Your task to perform on an android device: Go to accessibility settings Image 0: 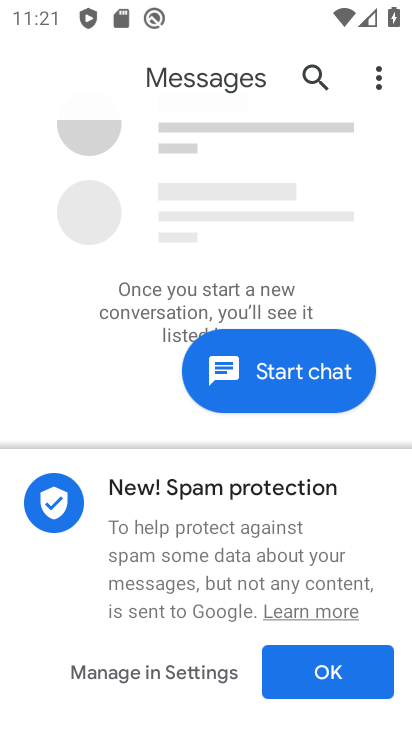
Step 0: press home button
Your task to perform on an android device: Go to accessibility settings Image 1: 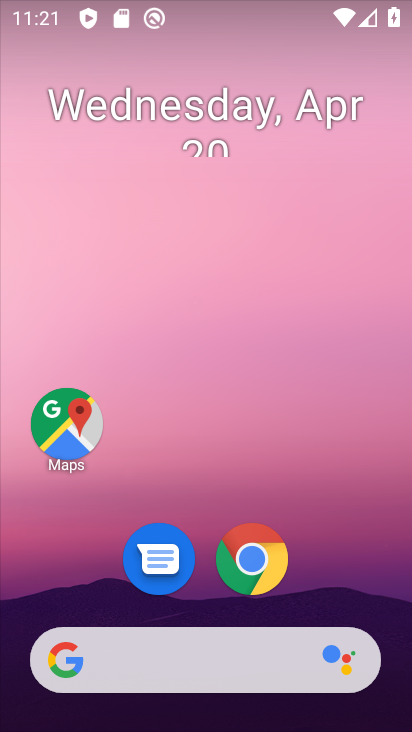
Step 1: drag from (327, 536) to (256, 44)
Your task to perform on an android device: Go to accessibility settings Image 2: 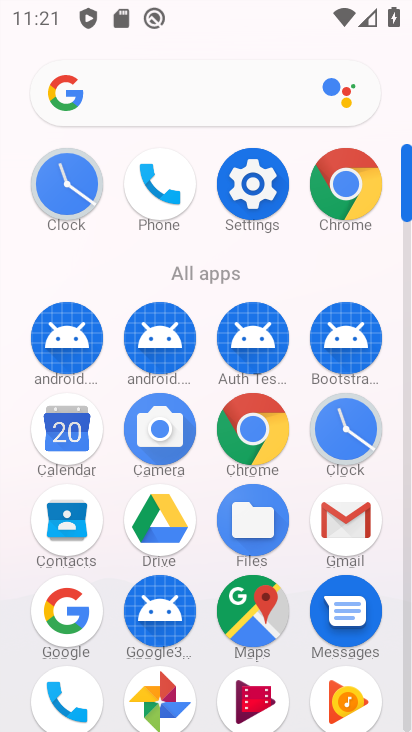
Step 2: click (244, 187)
Your task to perform on an android device: Go to accessibility settings Image 3: 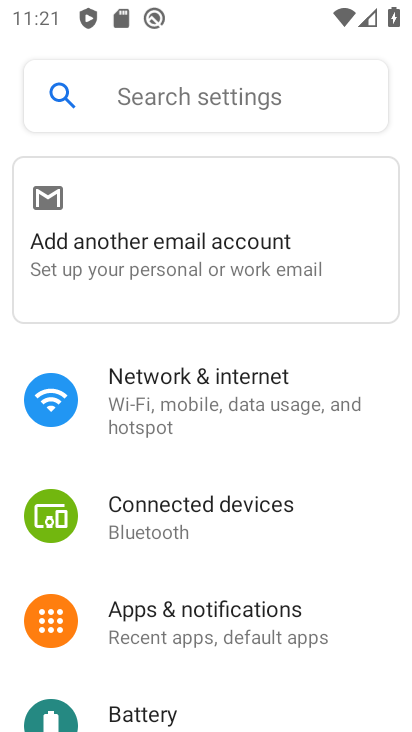
Step 3: drag from (243, 651) to (260, 220)
Your task to perform on an android device: Go to accessibility settings Image 4: 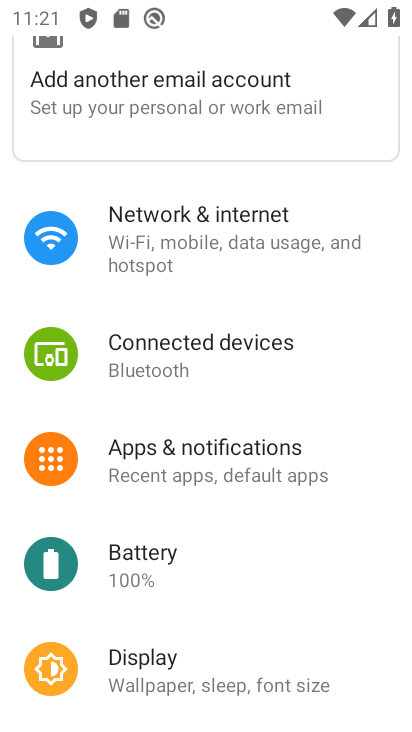
Step 4: drag from (246, 633) to (249, 198)
Your task to perform on an android device: Go to accessibility settings Image 5: 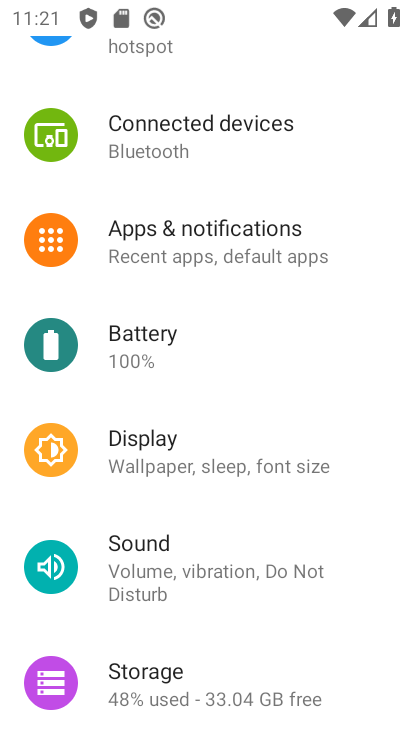
Step 5: drag from (267, 391) to (258, 244)
Your task to perform on an android device: Go to accessibility settings Image 6: 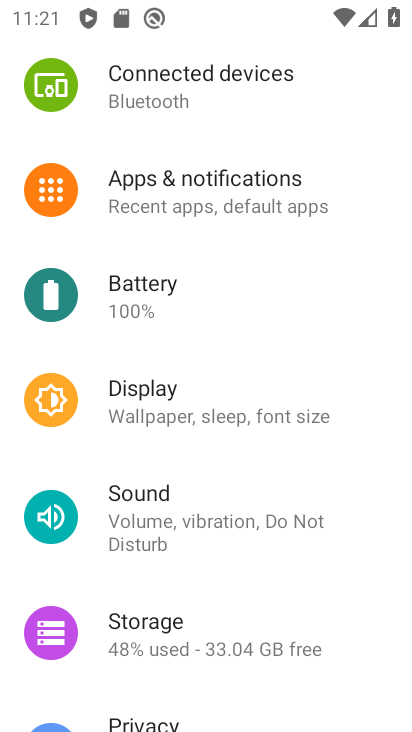
Step 6: drag from (208, 611) to (210, 159)
Your task to perform on an android device: Go to accessibility settings Image 7: 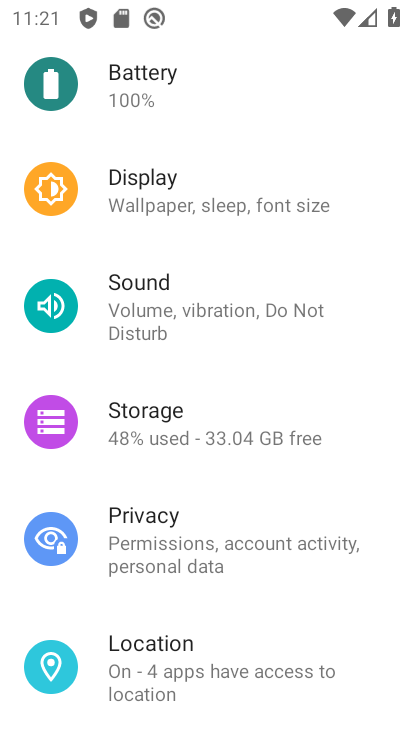
Step 7: drag from (223, 498) to (213, 191)
Your task to perform on an android device: Go to accessibility settings Image 8: 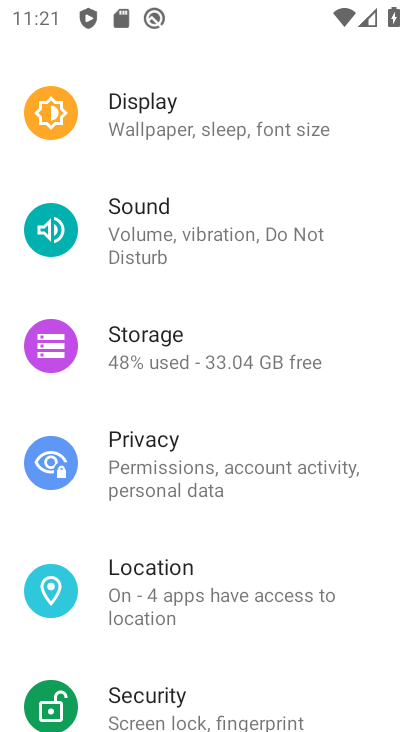
Step 8: drag from (232, 638) to (206, 190)
Your task to perform on an android device: Go to accessibility settings Image 9: 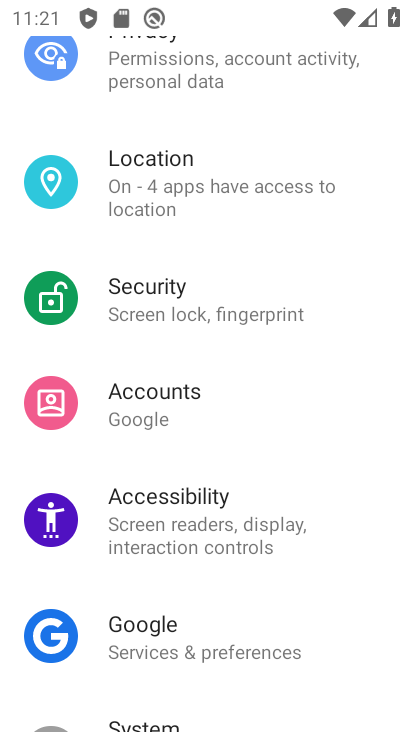
Step 9: click (206, 536)
Your task to perform on an android device: Go to accessibility settings Image 10: 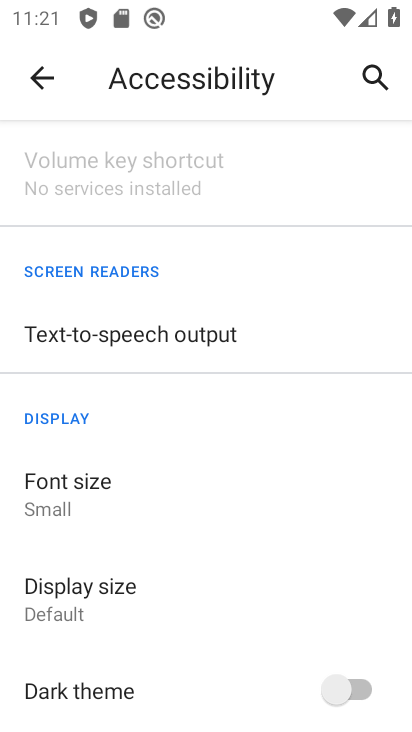
Step 10: task complete